Your task to perform on an android device: Open the stopwatch Image 0: 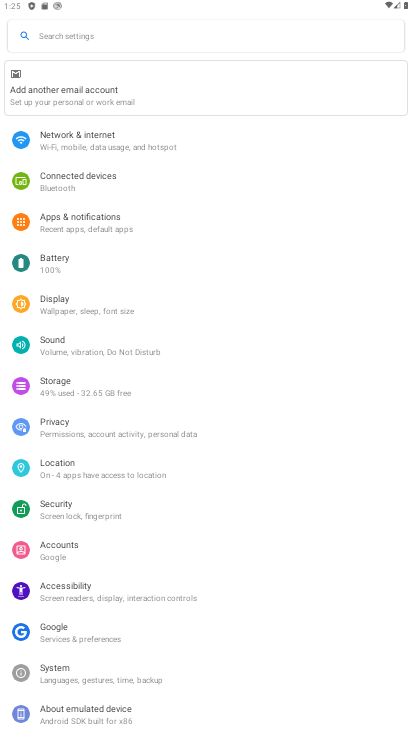
Step 0: press home button
Your task to perform on an android device: Open the stopwatch Image 1: 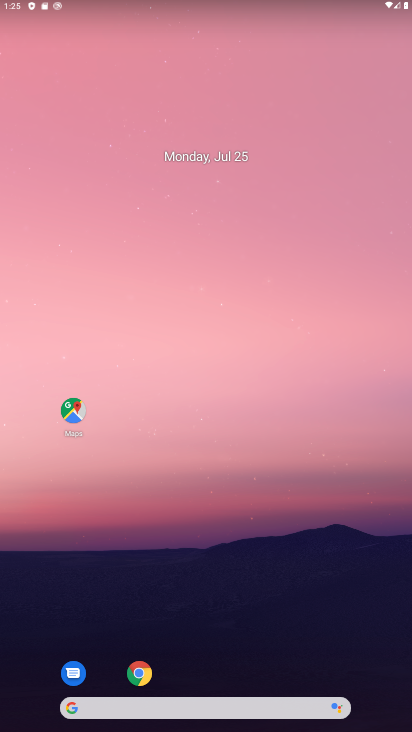
Step 1: drag from (190, 675) to (393, 302)
Your task to perform on an android device: Open the stopwatch Image 2: 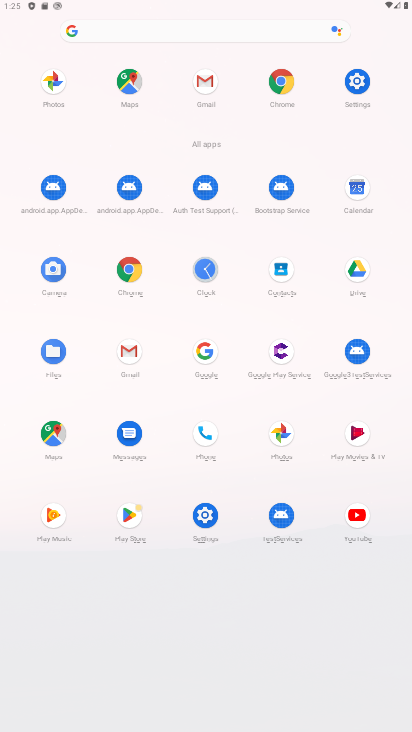
Step 2: click (197, 281)
Your task to perform on an android device: Open the stopwatch Image 3: 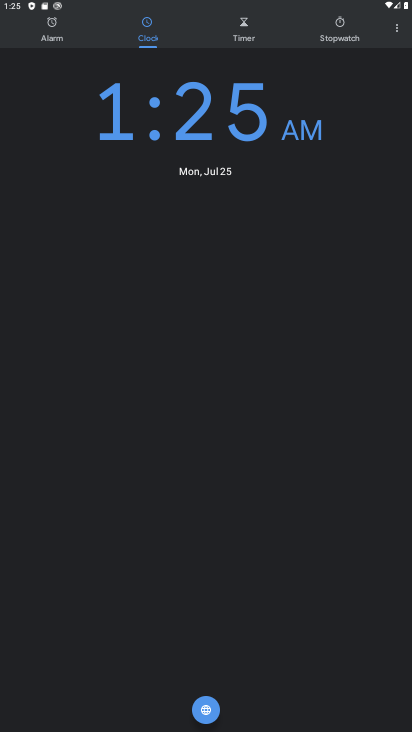
Step 3: click (345, 6)
Your task to perform on an android device: Open the stopwatch Image 4: 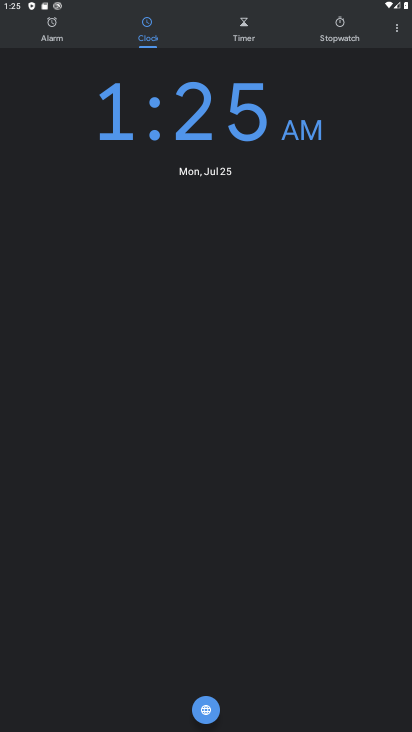
Step 4: click (341, 40)
Your task to perform on an android device: Open the stopwatch Image 5: 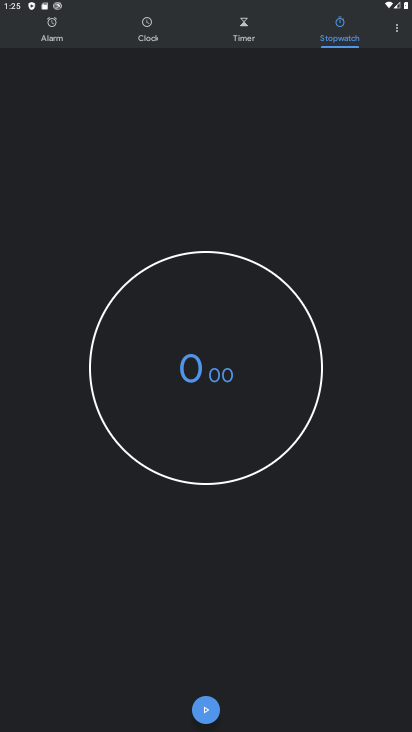
Step 5: task complete